Your task to perform on an android device: Go to location settings Image 0: 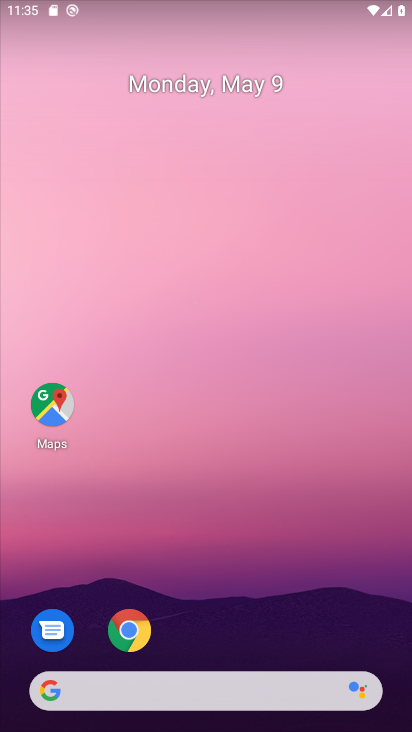
Step 0: drag from (268, 639) to (69, 87)
Your task to perform on an android device: Go to location settings Image 1: 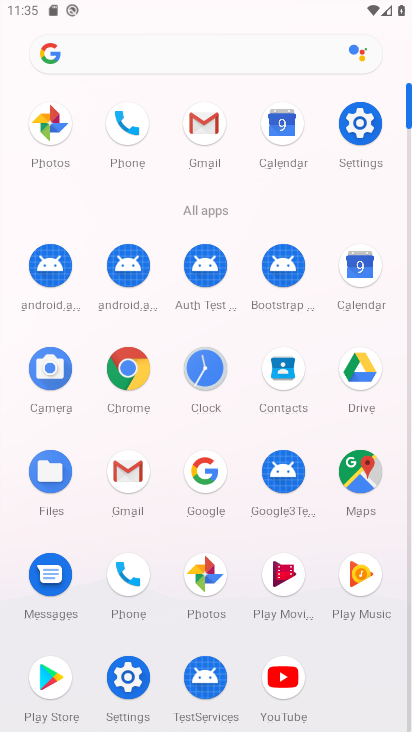
Step 1: click (134, 675)
Your task to perform on an android device: Go to location settings Image 2: 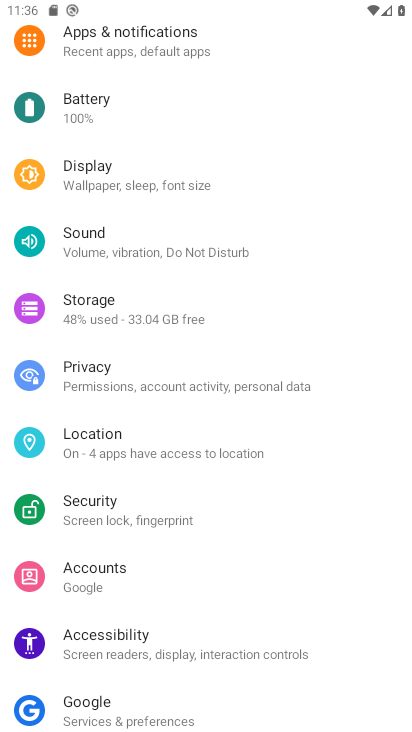
Step 2: click (141, 451)
Your task to perform on an android device: Go to location settings Image 3: 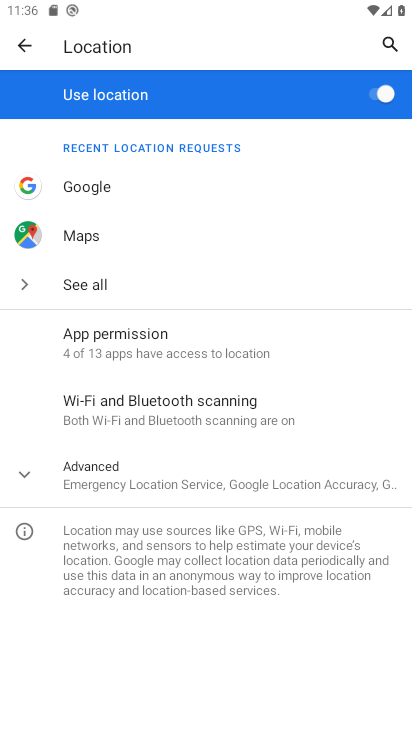
Step 3: task complete